Your task to perform on an android device: turn on javascript in the chrome app Image 0: 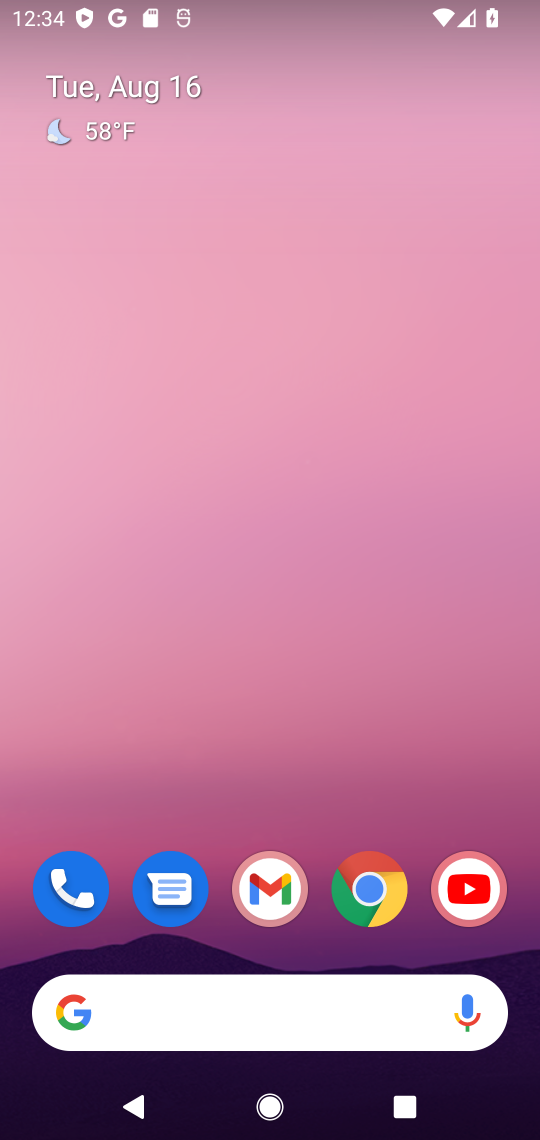
Step 0: drag from (318, 980) to (231, 70)
Your task to perform on an android device: turn on javascript in the chrome app Image 1: 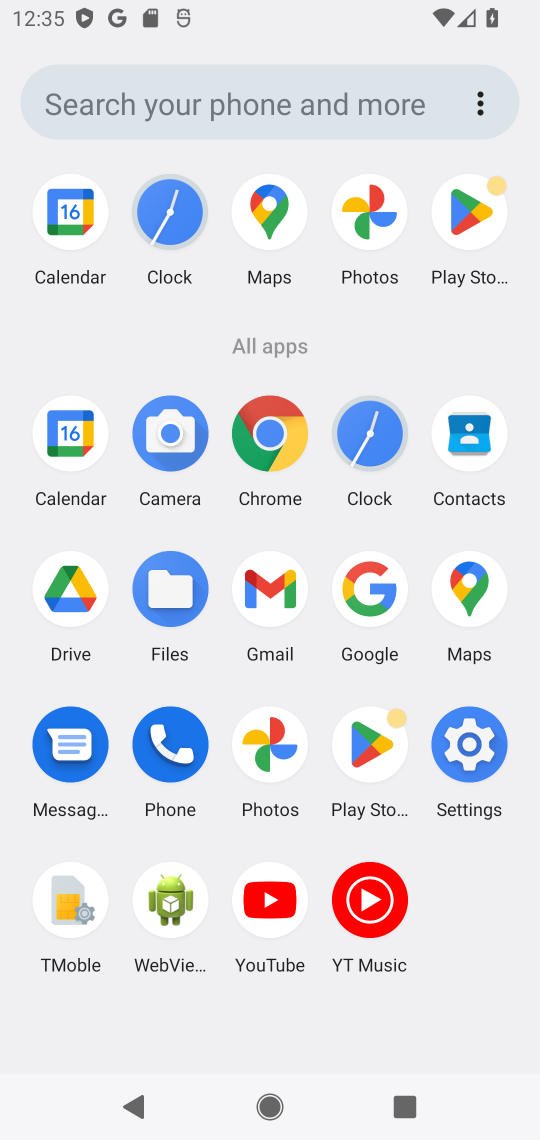
Step 1: click (290, 450)
Your task to perform on an android device: turn on javascript in the chrome app Image 2: 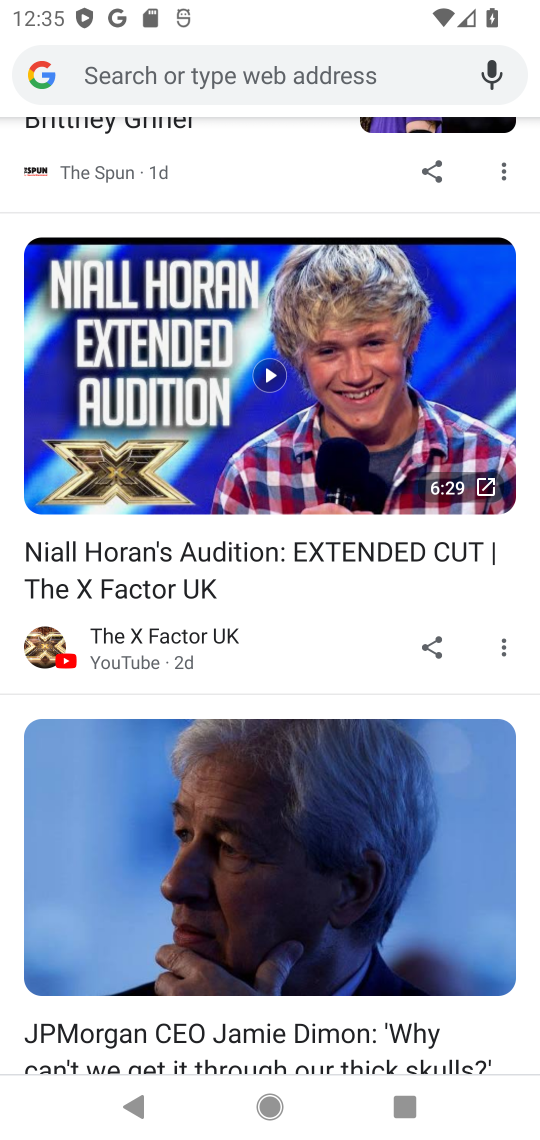
Step 2: drag from (518, 486) to (538, 878)
Your task to perform on an android device: turn on javascript in the chrome app Image 3: 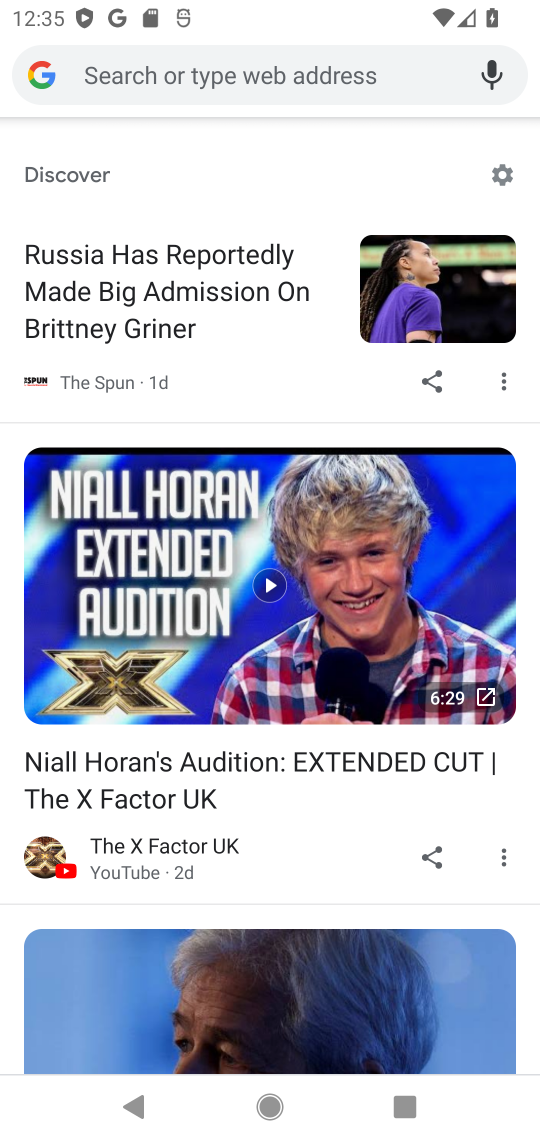
Step 3: drag from (369, 164) to (458, 1009)
Your task to perform on an android device: turn on javascript in the chrome app Image 4: 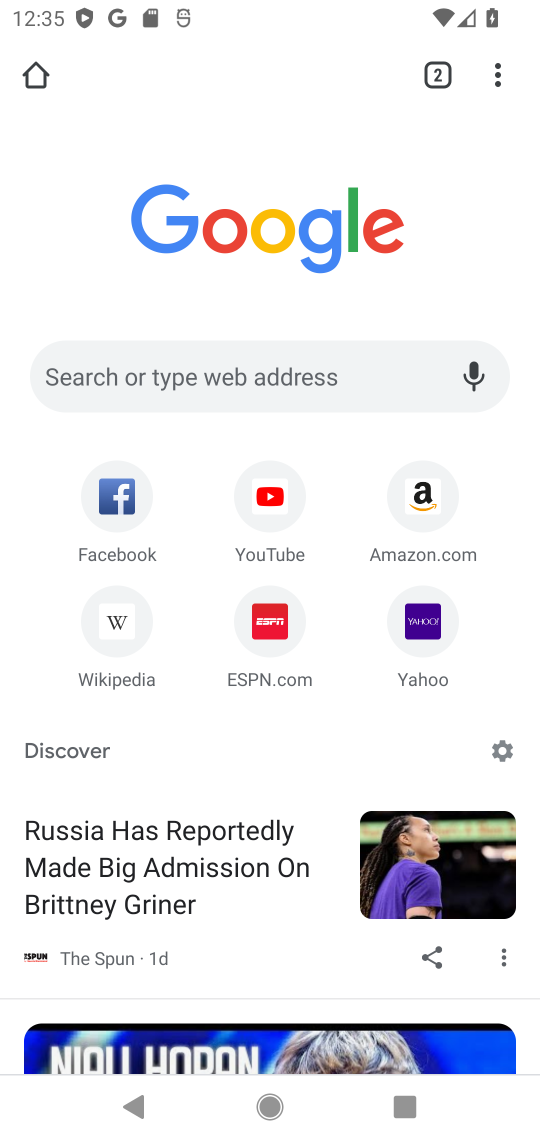
Step 4: drag from (497, 75) to (342, 801)
Your task to perform on an android device: turn on javascript in the chrome app Image 5: 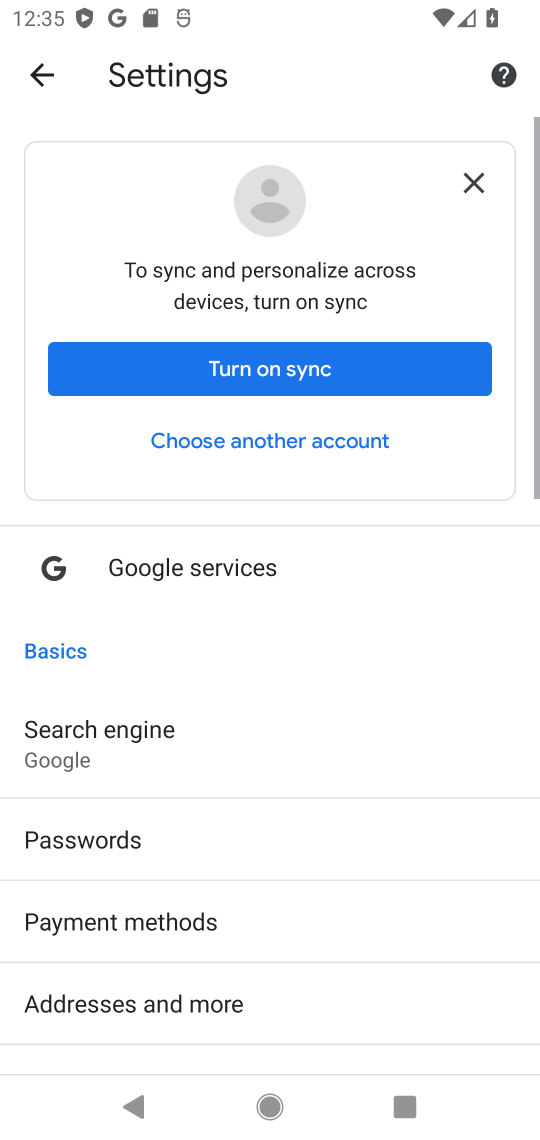
Step 5: drag from (235, 985) to (205, 240)
Your task to perform on an android device: turn on javascript in the chrome app Image 6: 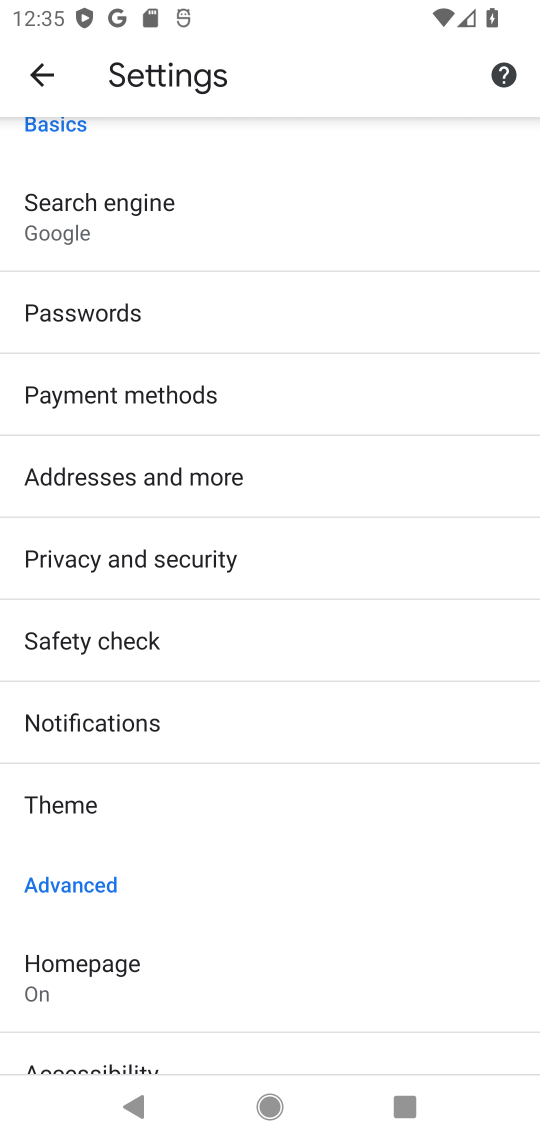
Step 6: drag from (130, 986) to (158, 347)
Your task to perform on an android device: turn on javascript in the chrome app Image 7: 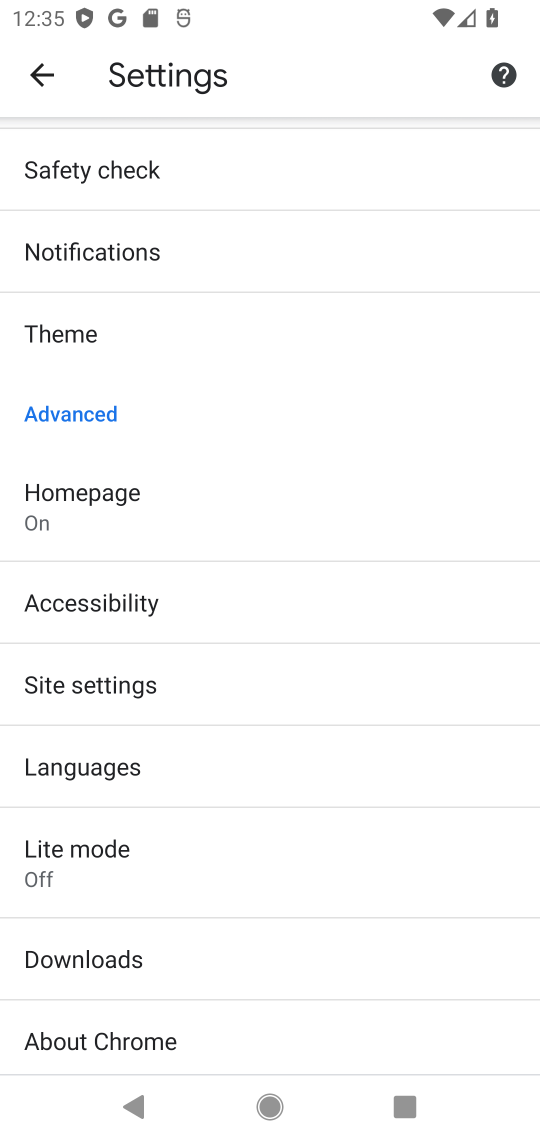
Step 7: click (148, 703)
Your task to perform on an android device: turn on javascript in the chrome app Image 8: 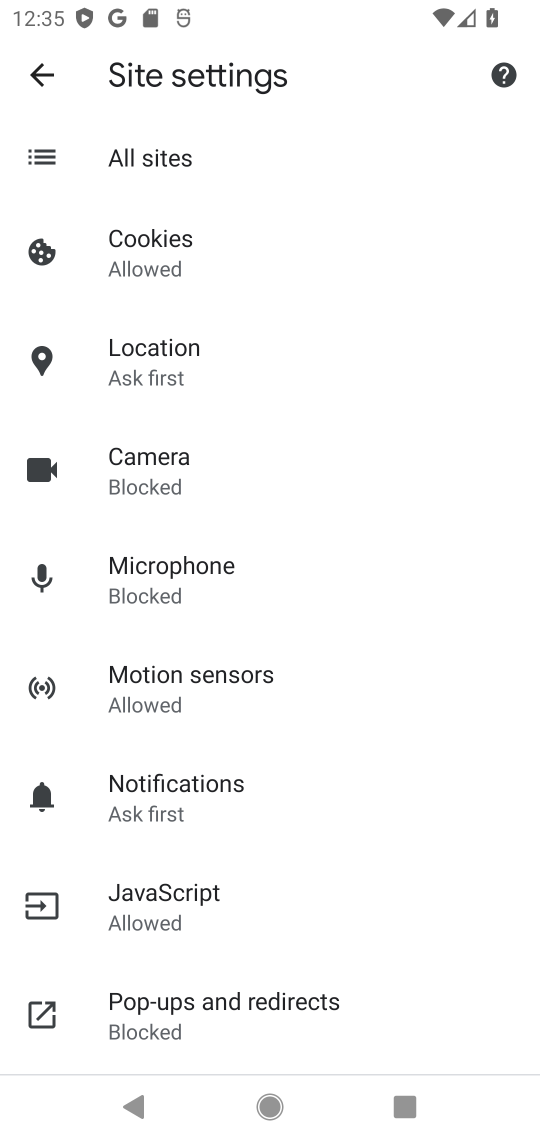
Step 8: click (191, 912)
Your task to perform on an android device: turn on javascript in the chrome app Image 9: 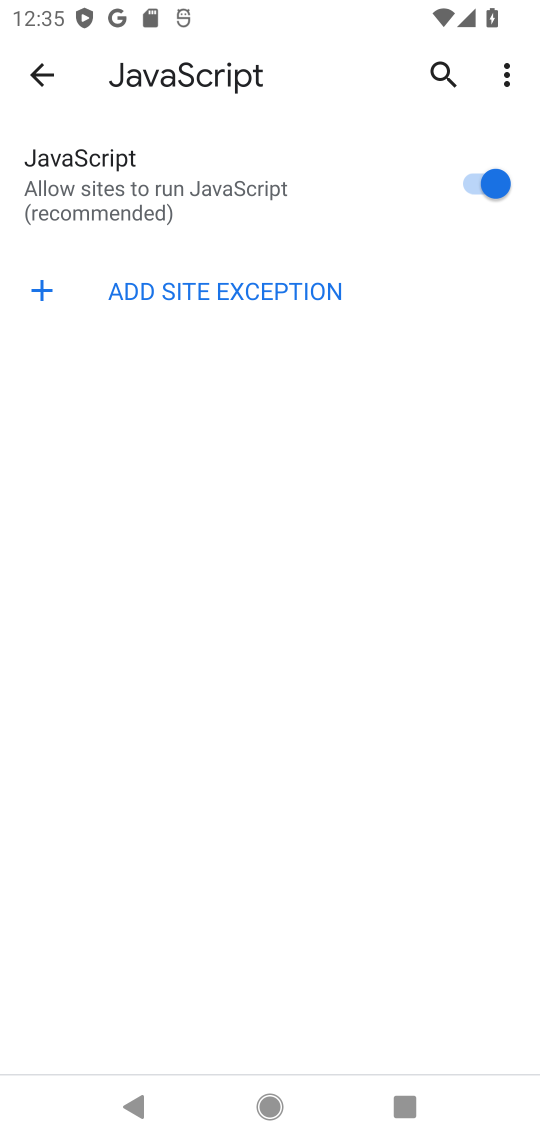
Step 9: task complete